Your task to perform on an android device: see sites visited before in the chrome app Image 0: 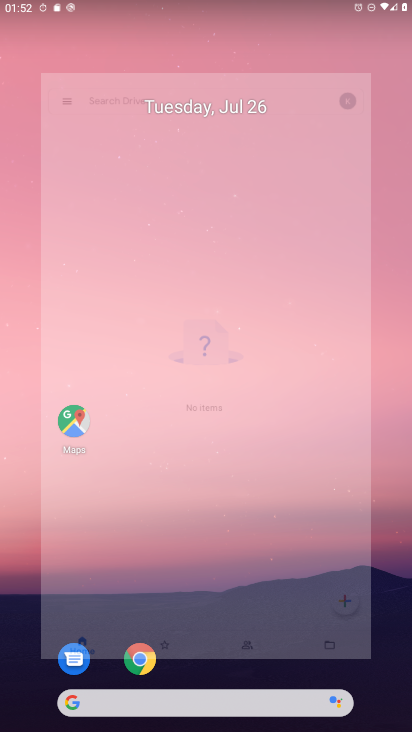
Step 0: press home button
Your task to perform on an android device: see sites visited before in the chrome app Image 1: 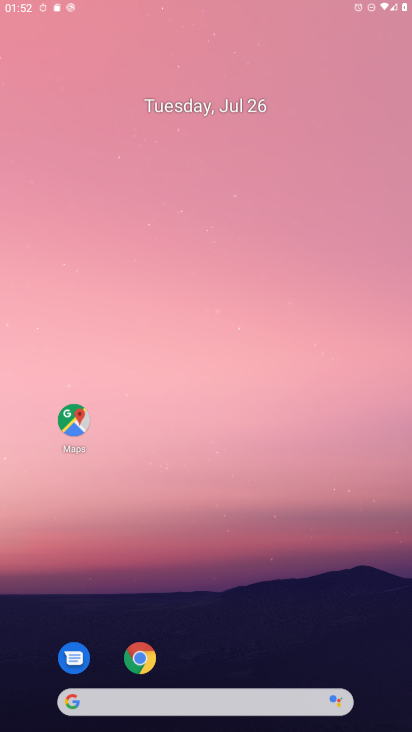
Step 1: drag from (195, 682) to (187, 210)
Your task to perform on an android device: see sites visited before in the chrome app Image 2: 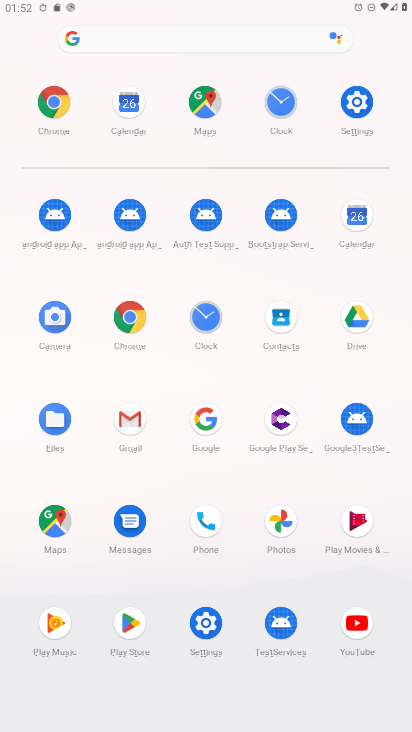
Step 2: click (34, 115)
Your task to perform on an android device: see sites visited before in the chrome app Image 3: 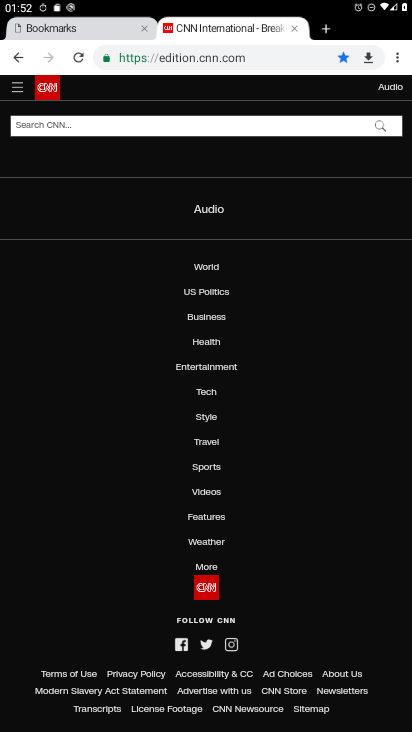
Step 3: task complete